Your task to perform on an android device: check storage Image 0: 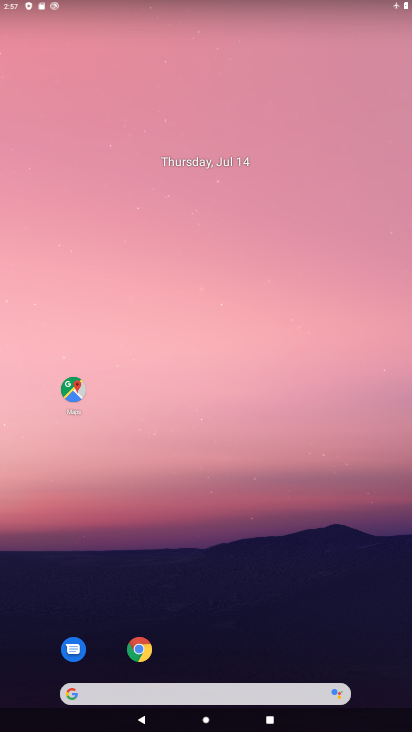
Step 0: drag from (183, 580) to (204, 26)
Your task to perform on an android device: check storage Image 1: 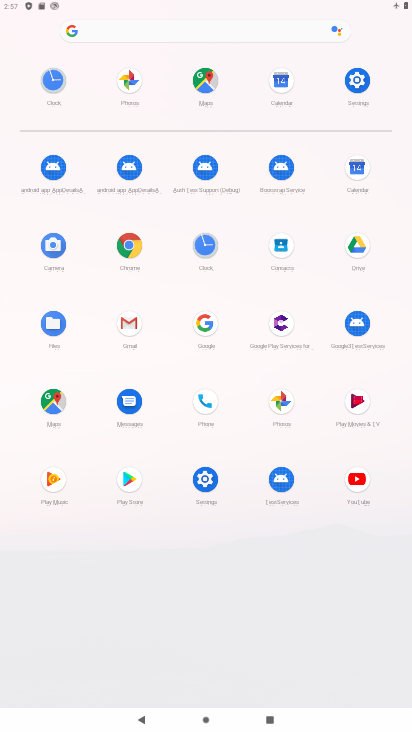
Step 1: click (210, 483)
Your task to perform on an android device: check storage Image 2: 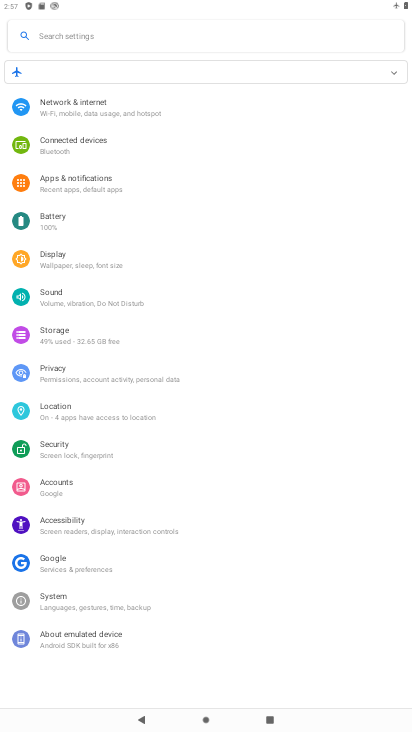
Step 2: click (100, 339)
Your task to perform on an android device: check storage Image 3: 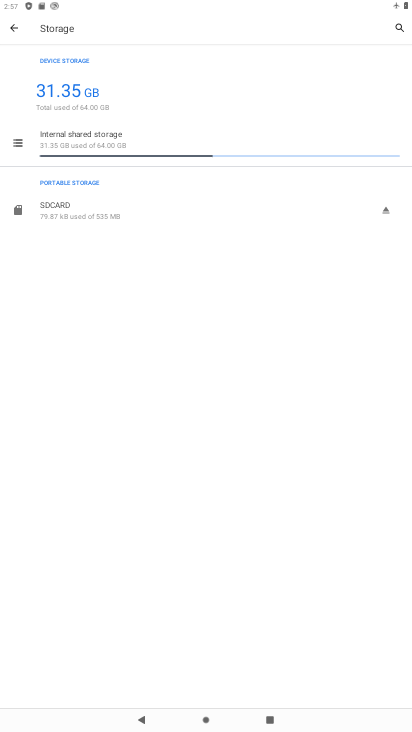
Step 3: click (84, 143)
Your task to perform on an android device: check storage Image 4: 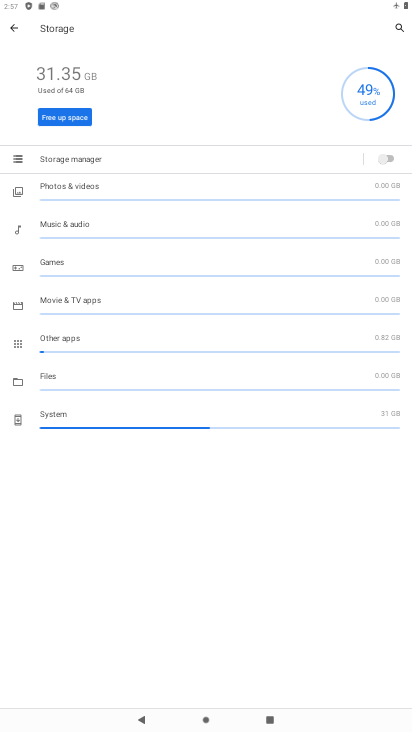
Step 4: task complete